Your task to perform on an android device: turn off sleep mode Image 0: 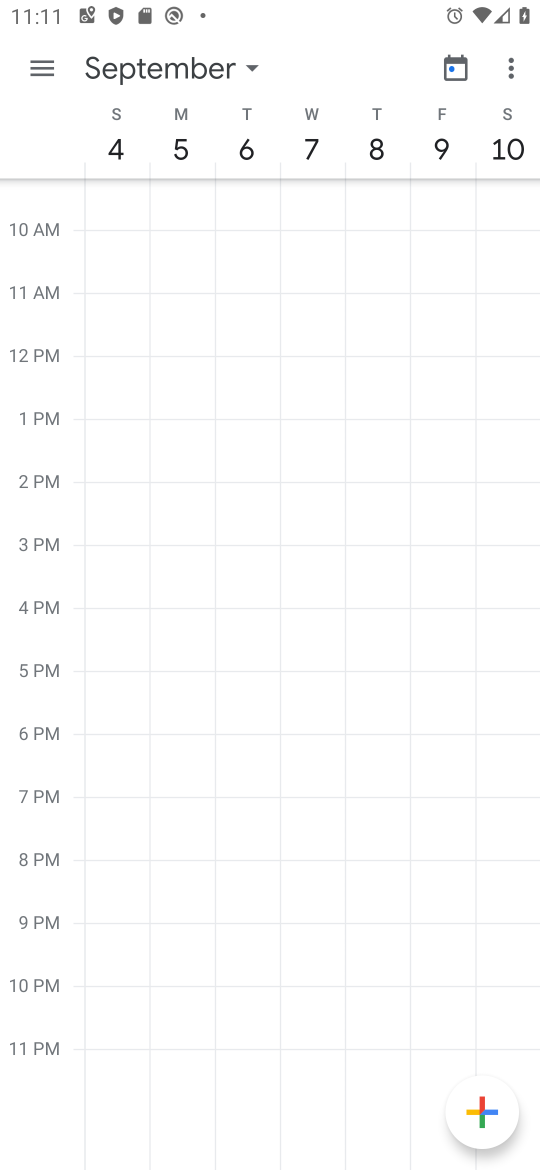
Step 0: press home button
Your task to perform on an android device: turn off sleep mode Image 1: 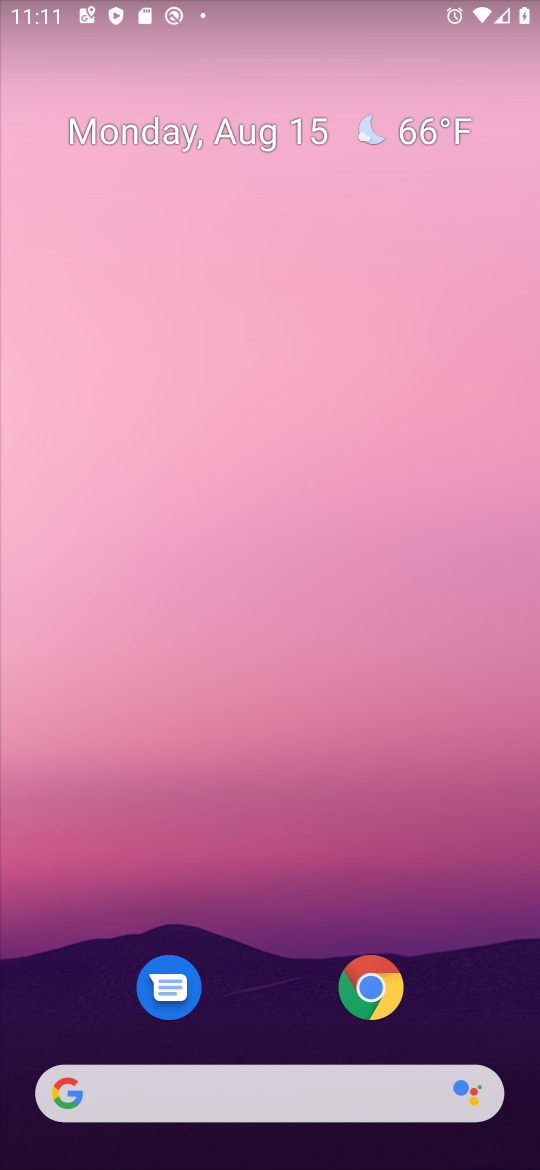
Step 1: drag from (218, 1023) to (209, 98)
Your task to perform on an android device: turn off sleep mode Image 2: 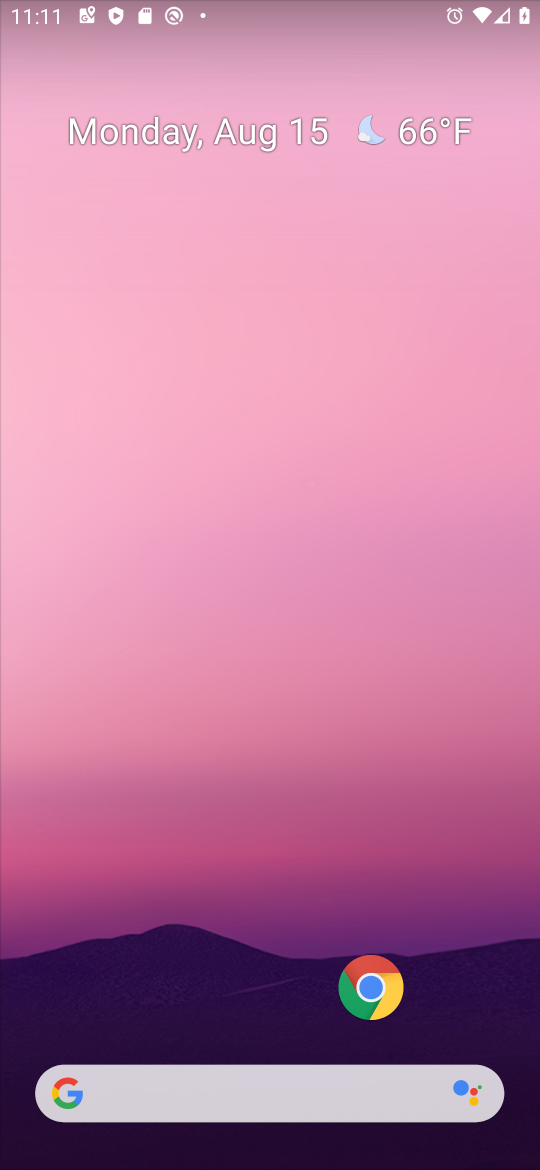
Step 2: drag from (241, 1049) to (242, 225)
Your task to perform on an android device: turn off sleep mode Image 3: 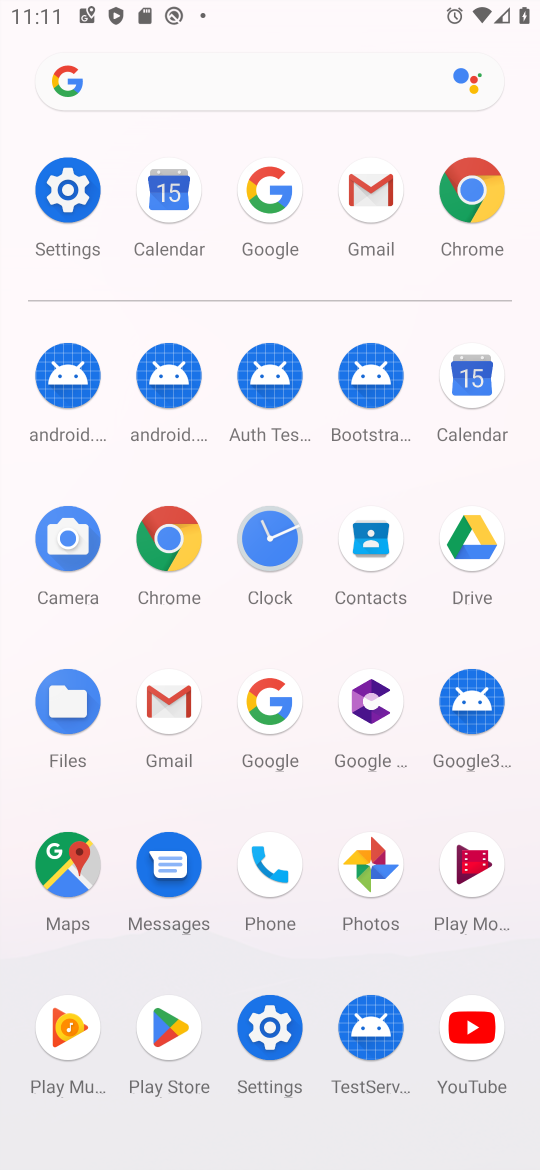
Step 3: click (290, 1051)
Your task to perform on an android device: turn off sleep mode Image 4: 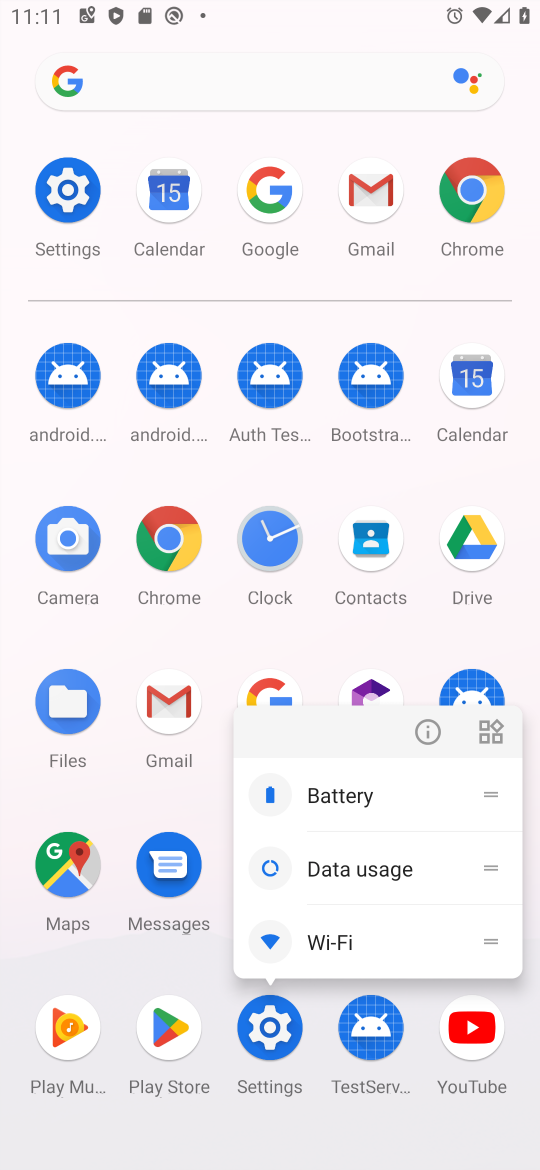
Step 4: drag from (409, 971) to (371, 426)
Your task to perform on an android device: turn off sleep mode Image 5: 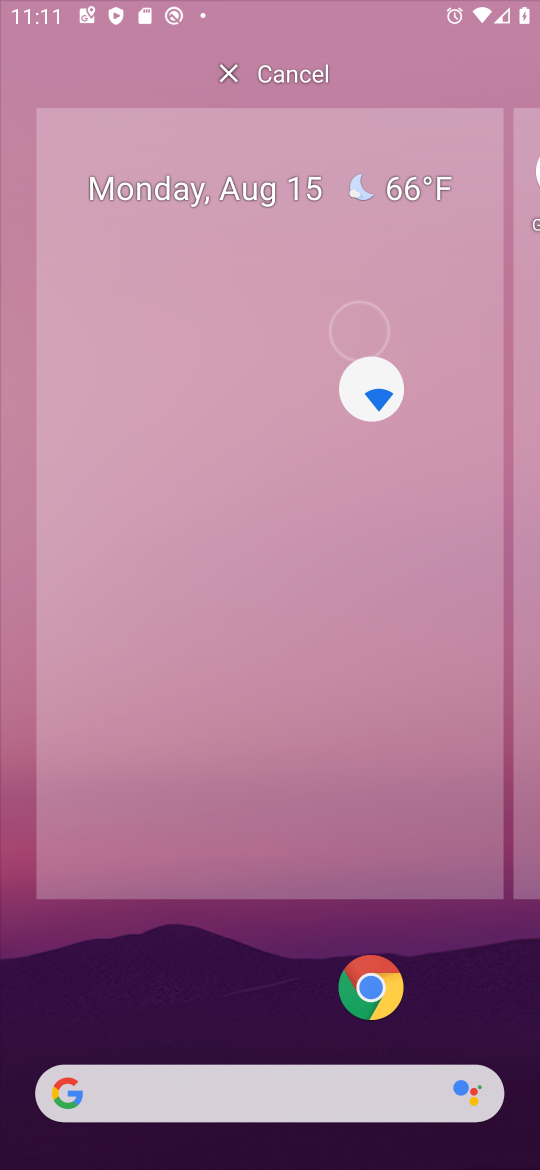
Step 5: drag from (273, 1043) to (280, 318)
Your task to perform on an android device: turn off sleep mode Image 6: 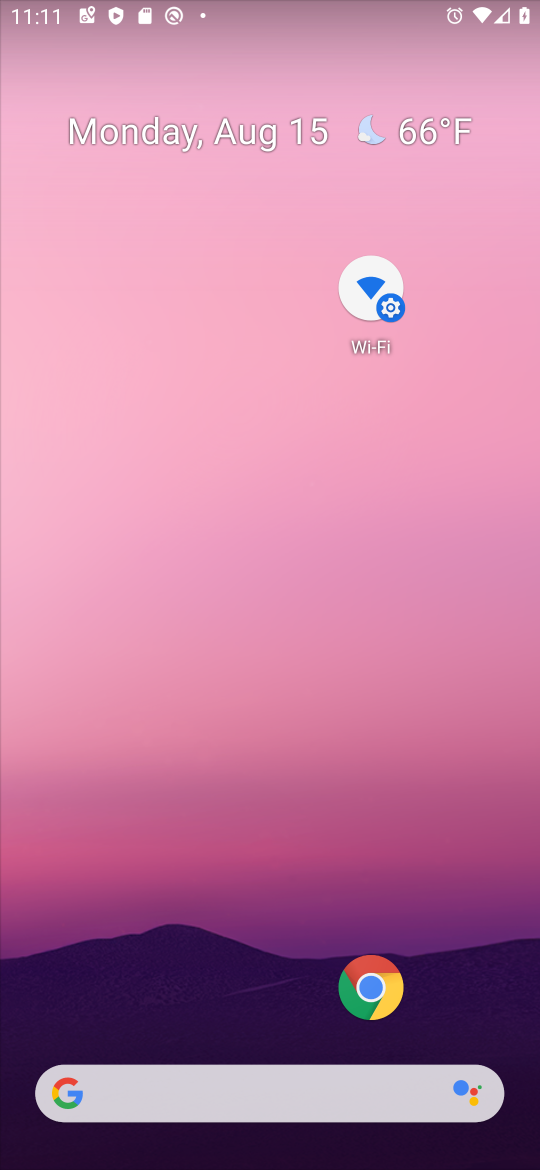
Step 6: drag from (300, 1065) to (211, 9)
Your task to perform on an android device: turn off sleep mode Image 7: 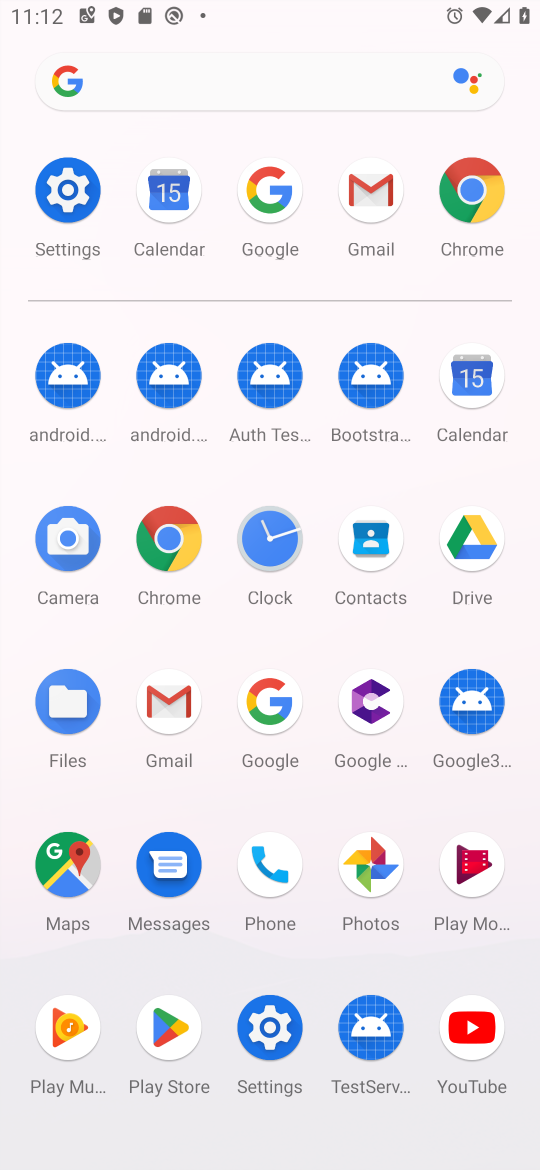
Step 7: click (258, 1047)
Your task to perform on an android device: turn off sleep mode Image 8: 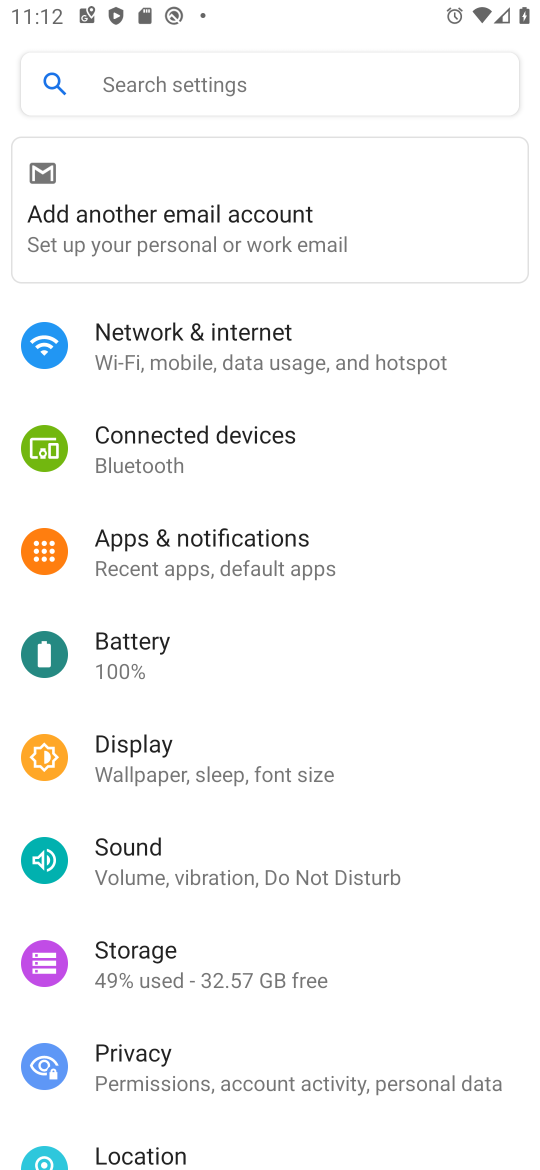
Step 8: drag from (234, 893) to (215, 312)
Your task to perform on an android device: turn off sleep mode Image 9: 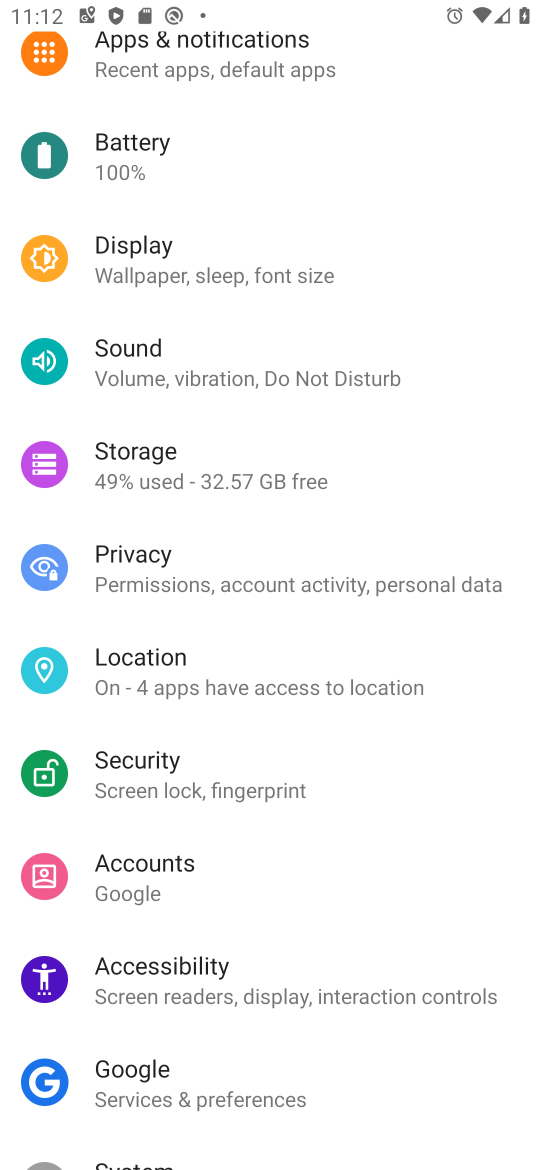
Step 9: click (116, 265)
Your task to perform on an android device: turn off sleep mode Image 10: 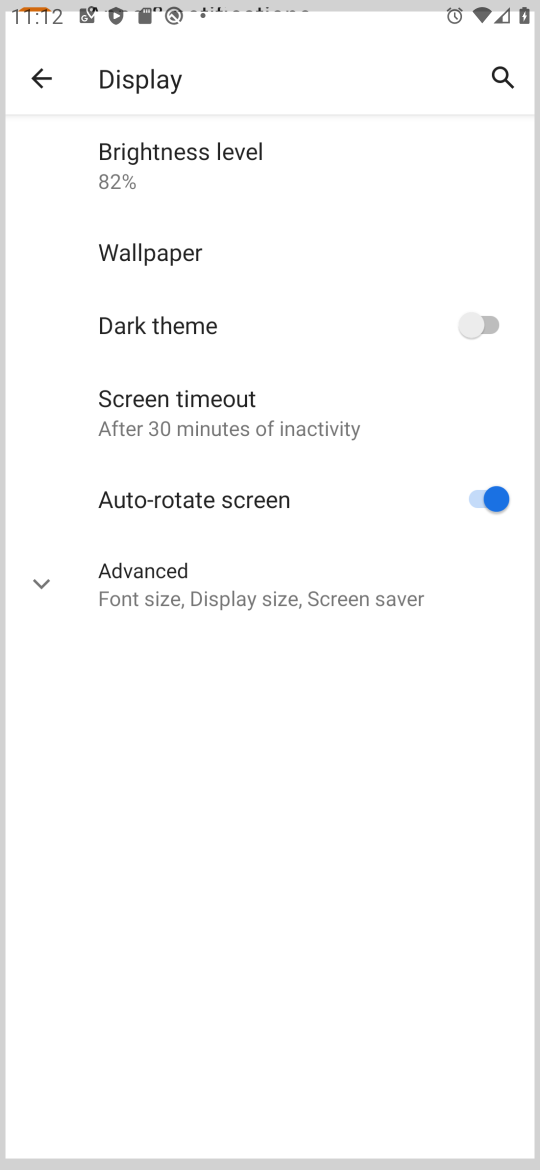
Step 10: task complete